Your task to perform on an android device: open a bookmark in the chrome app Image 0: 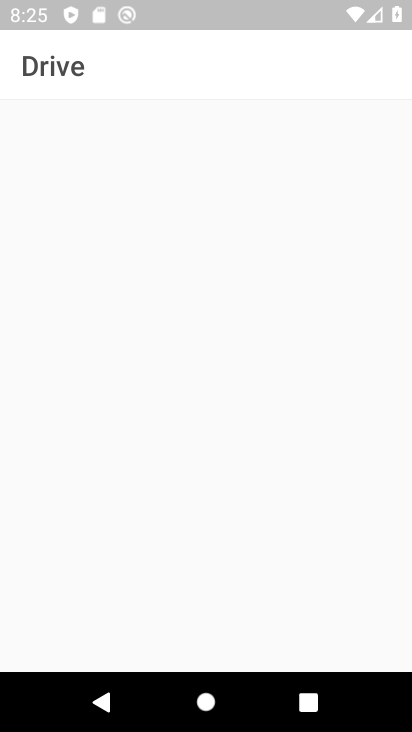
Step 0: press home button
Your task to perform on an android device: open a bookmark in the chrome app Image 1: 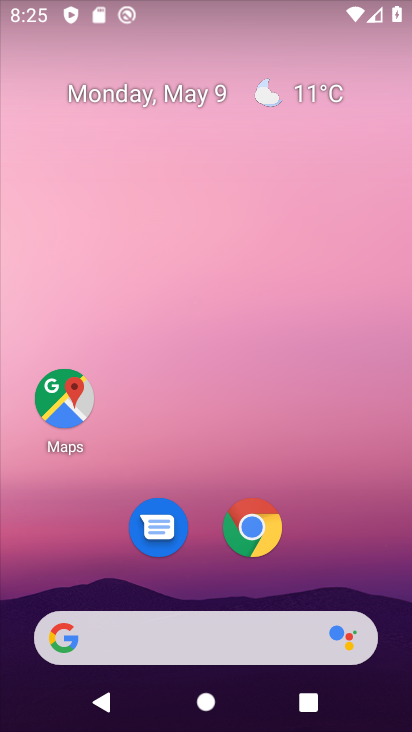
Step 1: click (254, 530)
Your task to perform on an android device: open a bookmark in the chrome app Image 2: 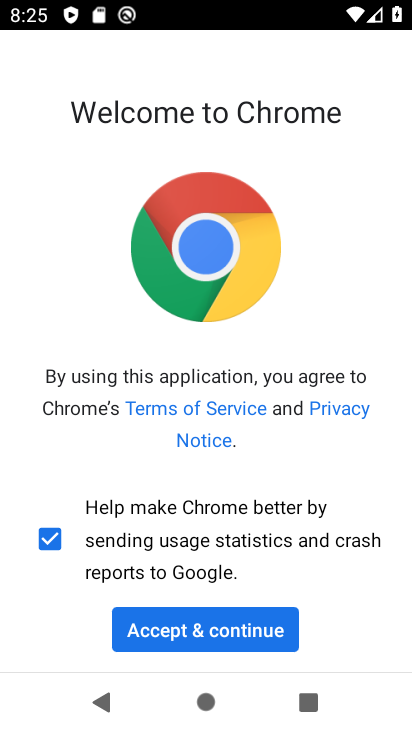
Step 2: click (237, 623)
Your task to perform on an android device: open a bookmark in the chrome app Image 3: 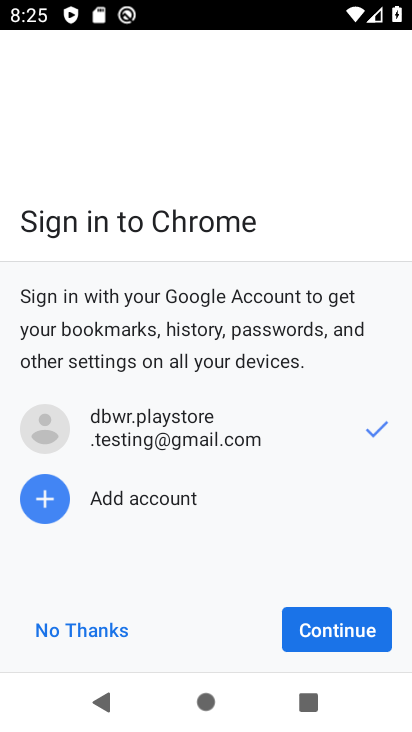
Step 3: click (346, 619)
Your task to perform on an android device: open a bookmark in the chrome app Image 4: 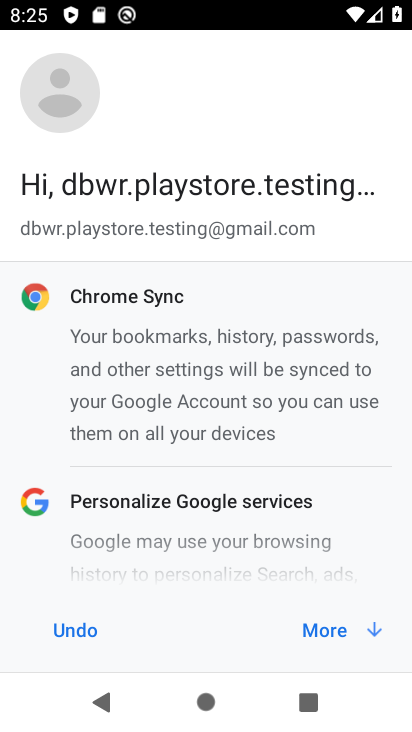
Step 4: click (346, 619)
Your task to perform on an android device: open a bookmark in the chrome app Image 5: 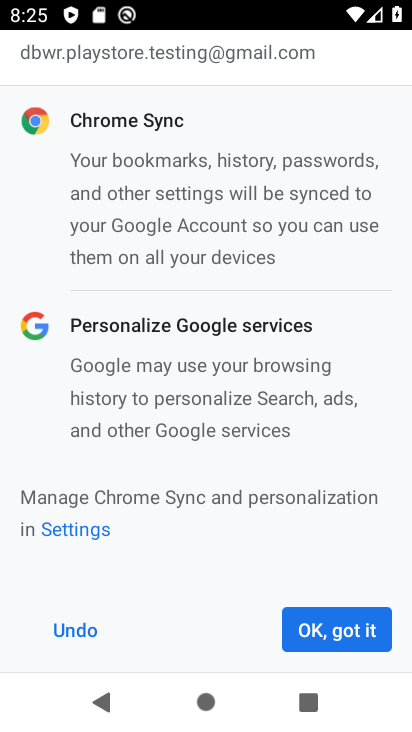
Step 5: click (346, 619)
Your task to perform on an android device: open a bookmark in the chrome app Image 6: 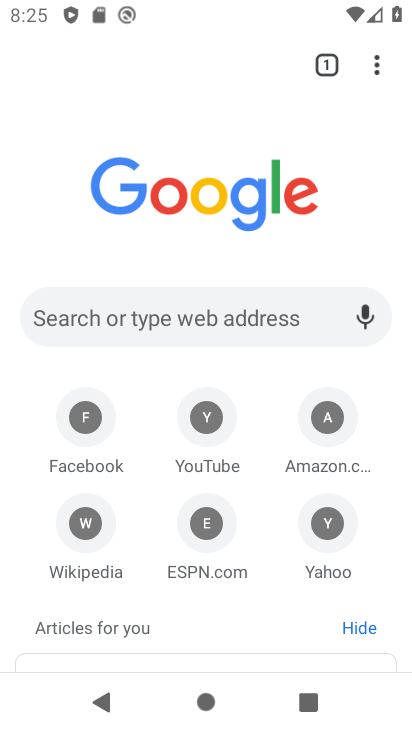
Step 6: click (370, 70)
Your task to perform on an android device: open a bookmark in the chrome app Image 7: 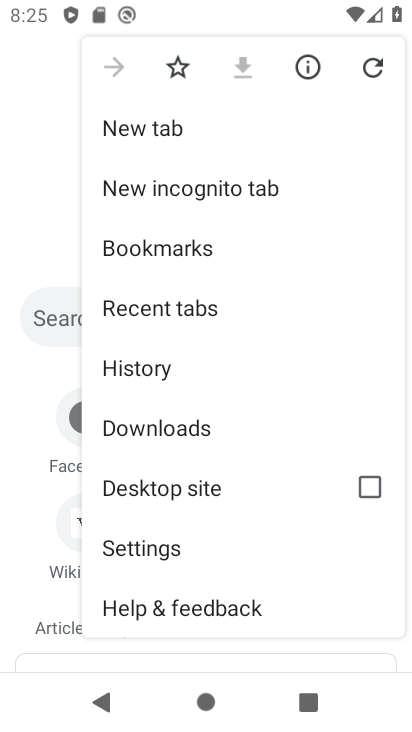
Step 7: click (151, 256)
Your task to perform on an android device: open a bookmark in the chrome app Image 8: 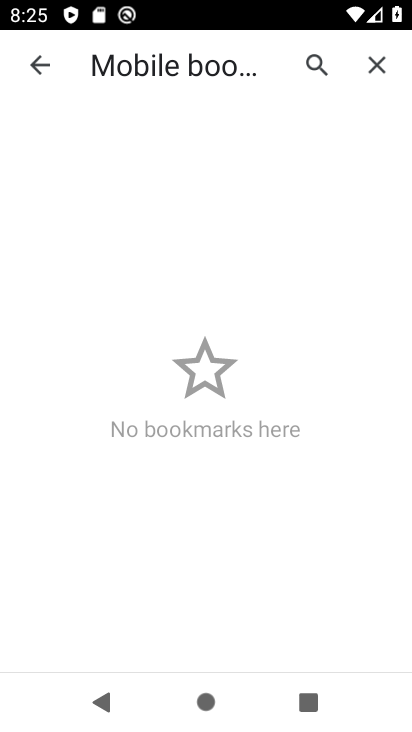
Step 8: task complete